Your task to perform on an android device: Search for sushi restaurants on Maps Image 0: 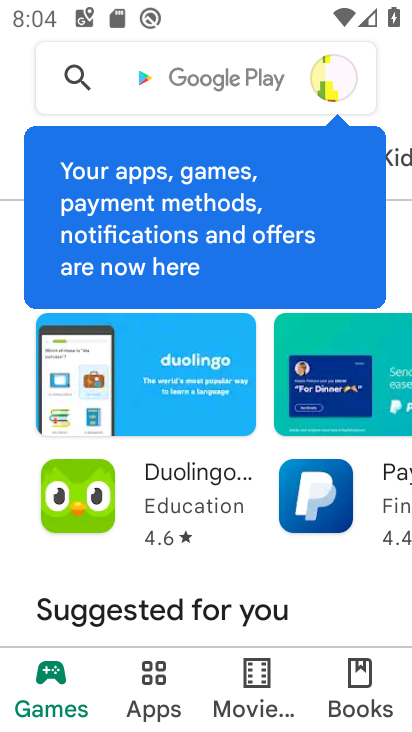
Step 0: press home button
Your task to perform on an android device: Search for sushi restaurants on Maps Image 1: 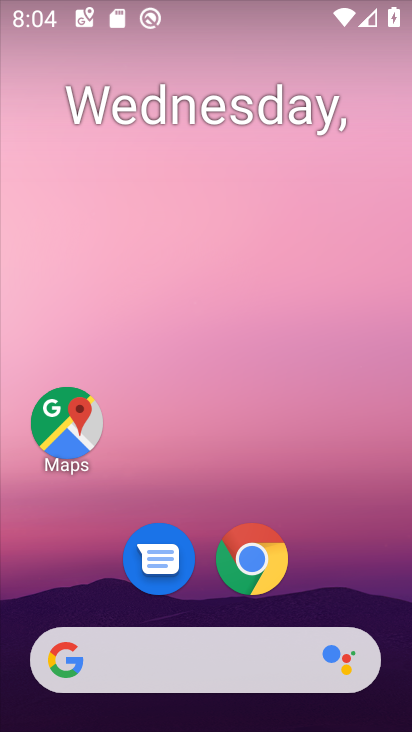
Step 1: drag from (358, 331) to (339, 123)
Your task to perform on an android device: Search for sushi restaurants on Maps Image 2: 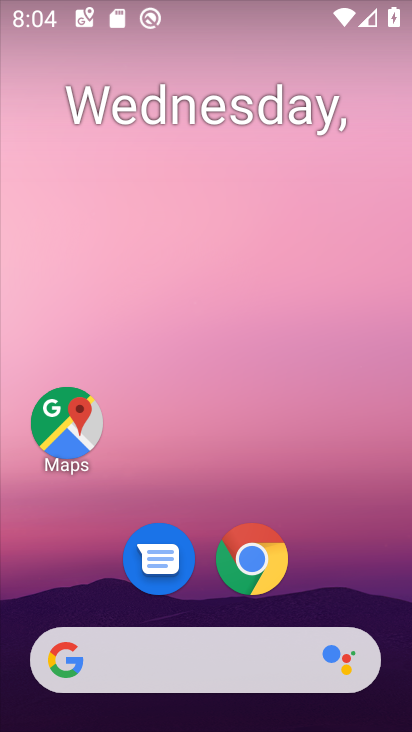
Step 2: drag from (363, 528) to (362, 95)
Your task to perform on an android device: Search for sushi restaurants on Maps Image 3: 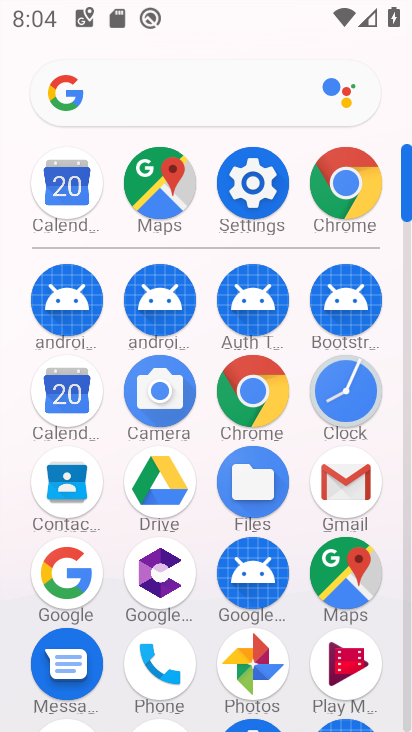
Step 3: click (323, 574)
Your task to perform on an android device: Search for sushi restaurants on Maps Image 4: 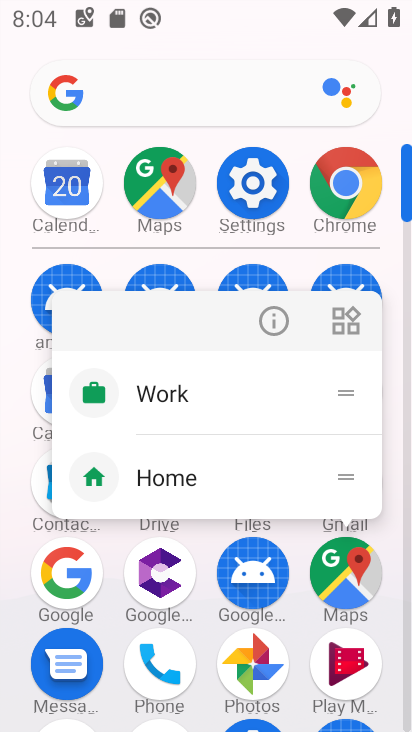
Step 4: click (357, 601)
Your task to perform on an android device: Search for sushi restaurants on Maps Image 5: 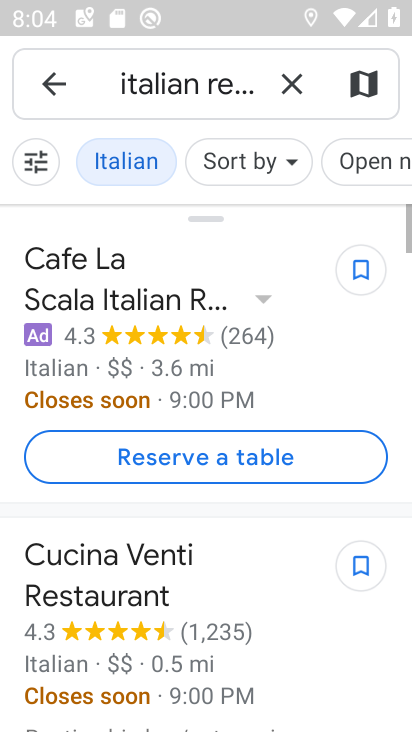
Step 5: click (289, 76)
Your task to perform on an android device: Search for sushi restaurants on Maps Image 6: 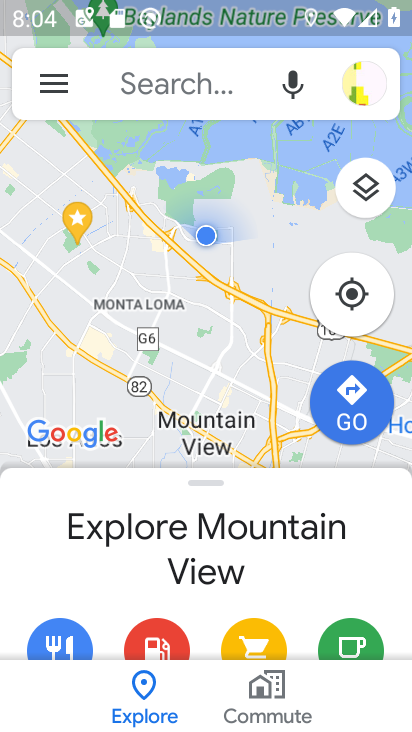
Step 6: click (155, 87)
Your task to perform on an android device: Search for sushi restaurants on Maps Image 7: 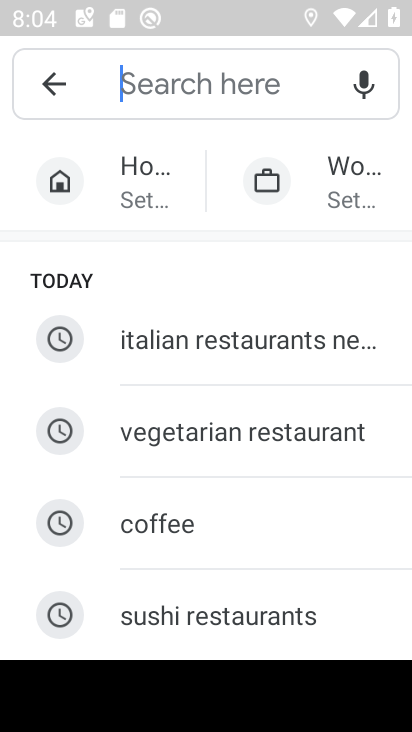
Step 7: click (272, 615)
Your task to perform on an android device: Search for sushi restaurants on Maps Image 8: 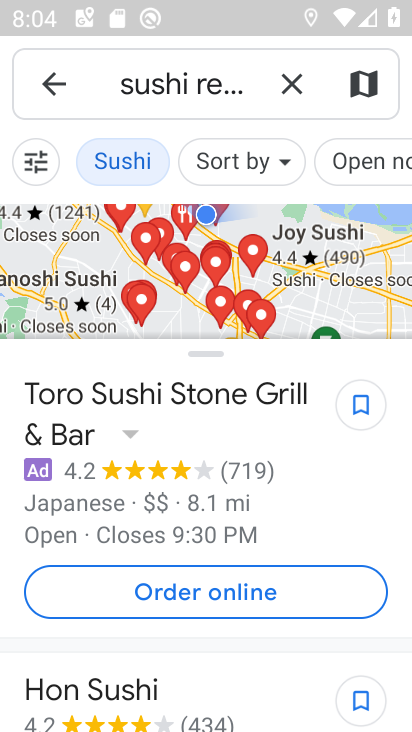
Step 8: task complete